Your task to perform on an android device: open wifi settings Image 0: 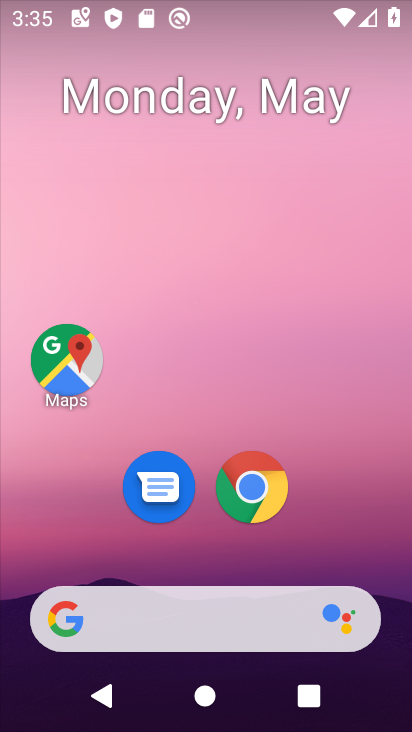
Step 0: drag from (200, 461) to (197, 214)
Your task to perform on an android device: open wifi settings Image 1: 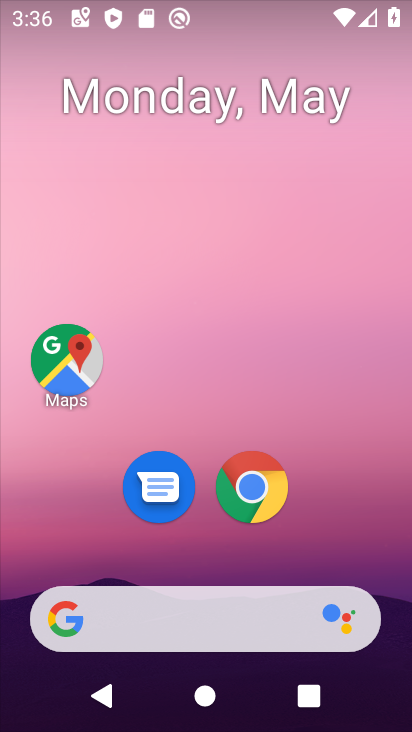
Step 1: drag from (206, 589) to (188, 173)
Your task to perform on an android device: open wifi settings Image 2: 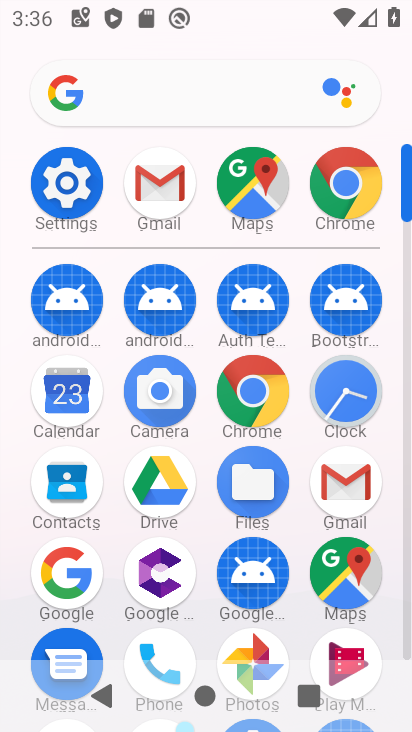
Step 2: click (57, 188)
Your task to perform on an android device: open wifi settings Image 3: 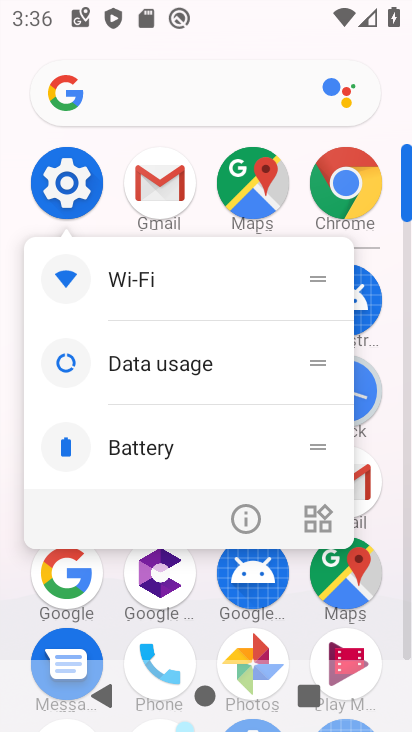
Step 3: click (58, 187)
Your task to perform on an android device: open wifi settings Image 4: 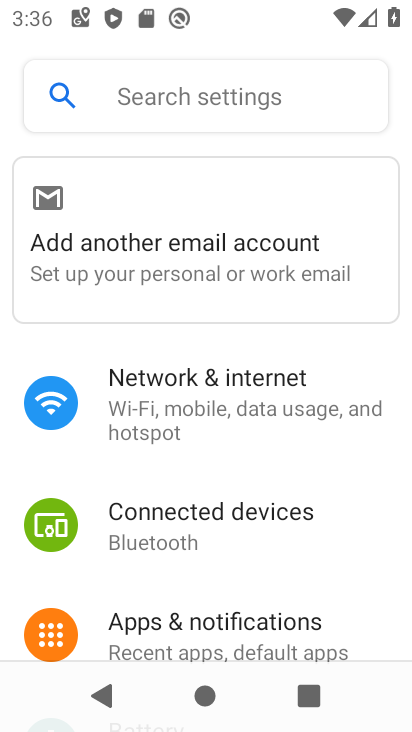
Step 4: click (196, 382)
Your task to perform on an android device: open wifi settings Image 5: 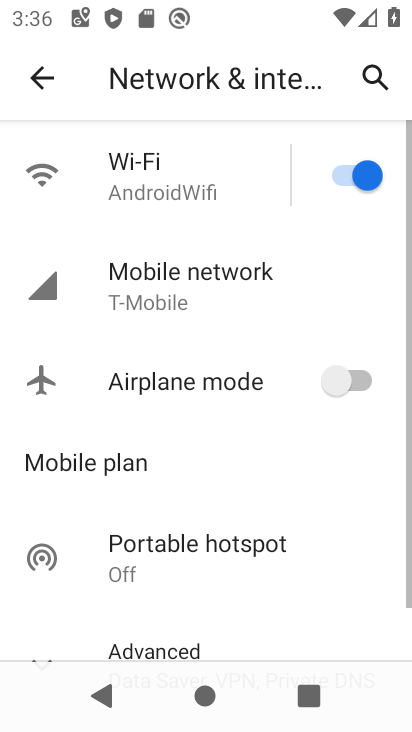
Step 5: click (181, 187)
Your task to perform on an android device: open wifi settings Image 6: 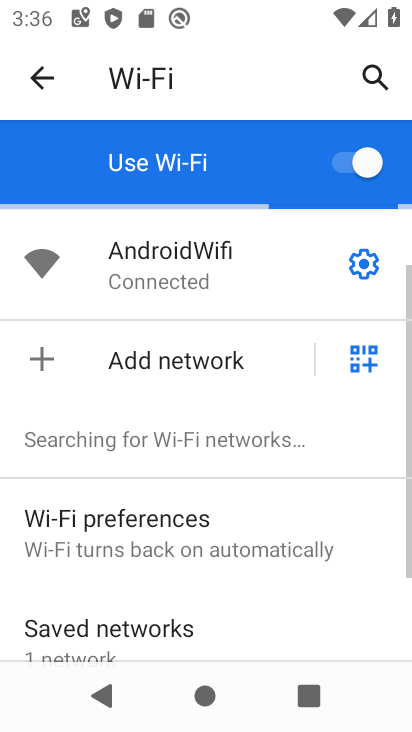
Step 6: click (354, 264)
Your task to perform on an android device: open wifi settings Image 7: 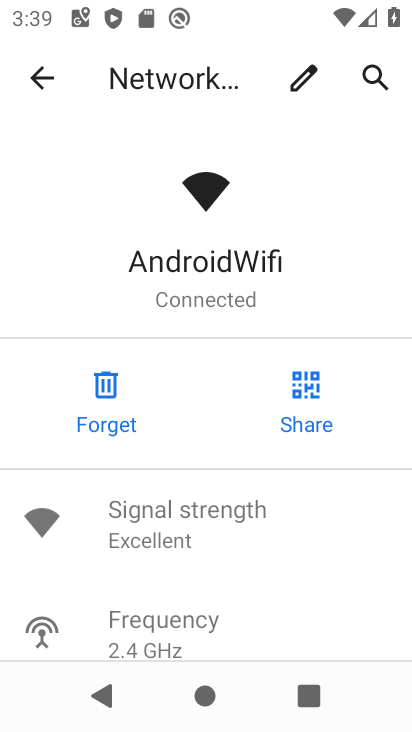
Step 7: task complete